Your task to perform on an android device: install app "Indeed Job Search" Image 0: 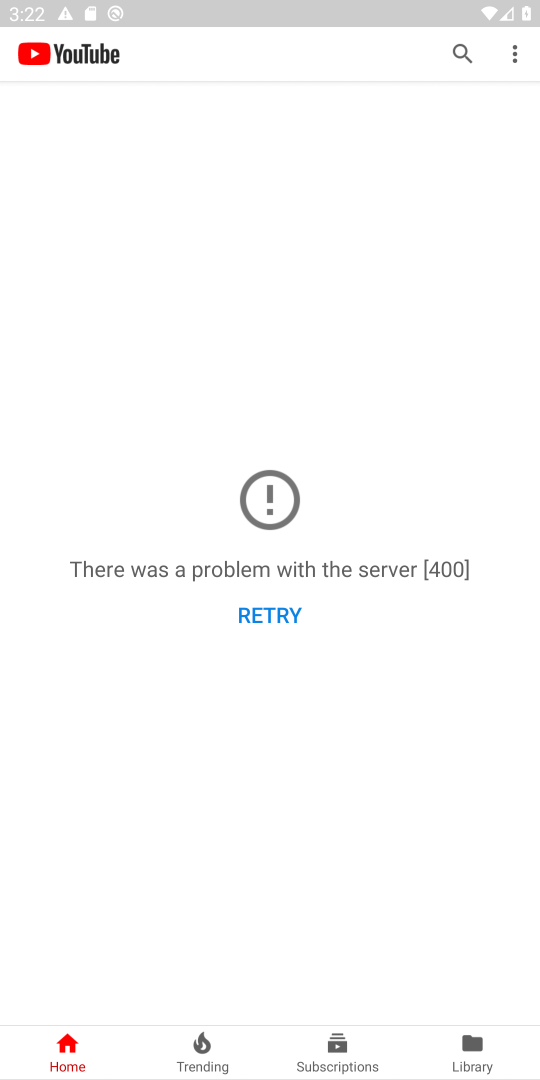
Step 0: press home button
Your task to perform on an android device: install app "Indeed Job Search" Image 1: 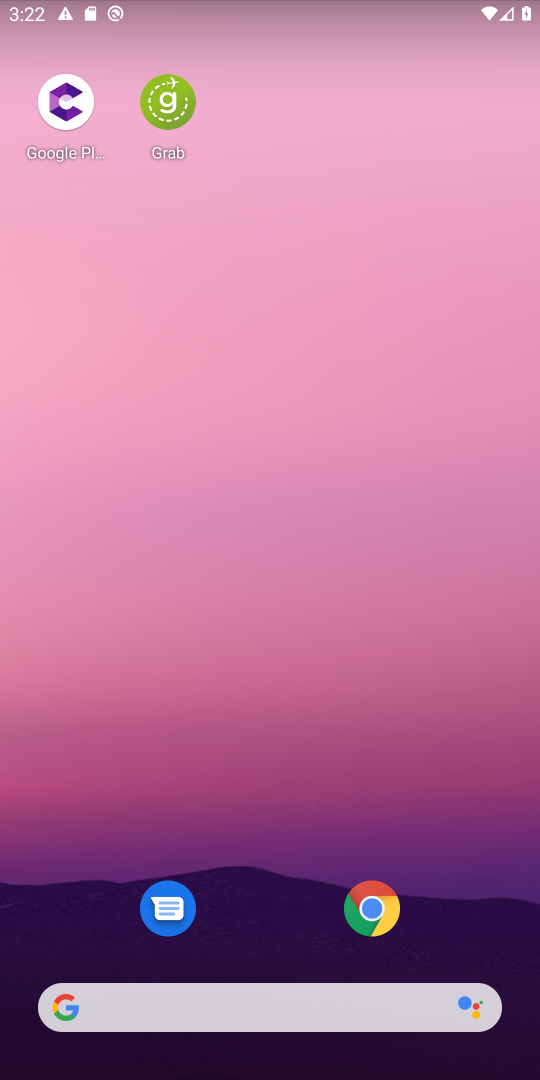
Step 1: drag from (221, 1000) to (169, 291)
Your task to perform on an android device: install app "Indeed Job Search" Image 2: 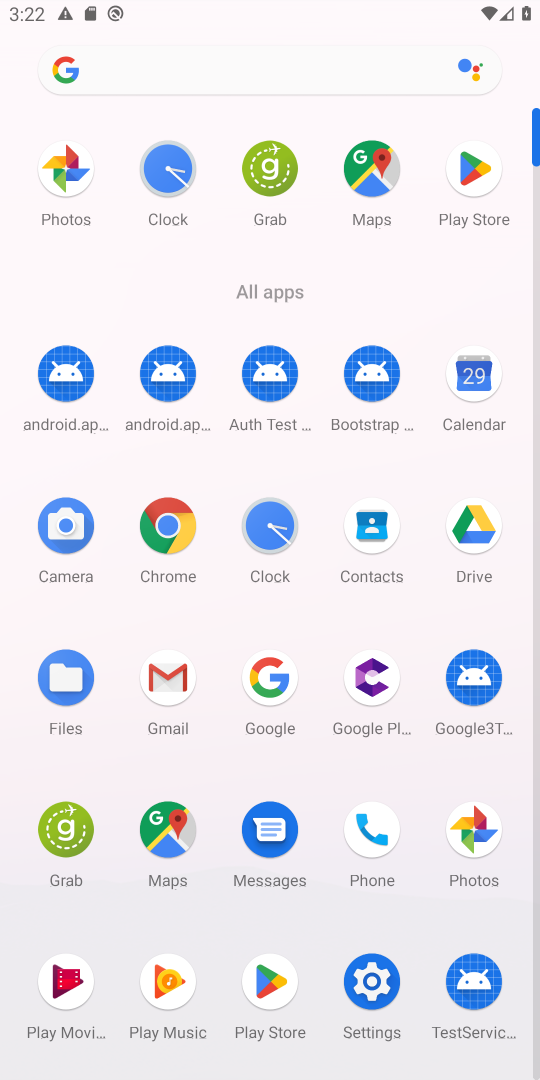
Step 2: click (270, 976)
Your task to perform on an android device: install app "Indeed Job Search" Image 3: 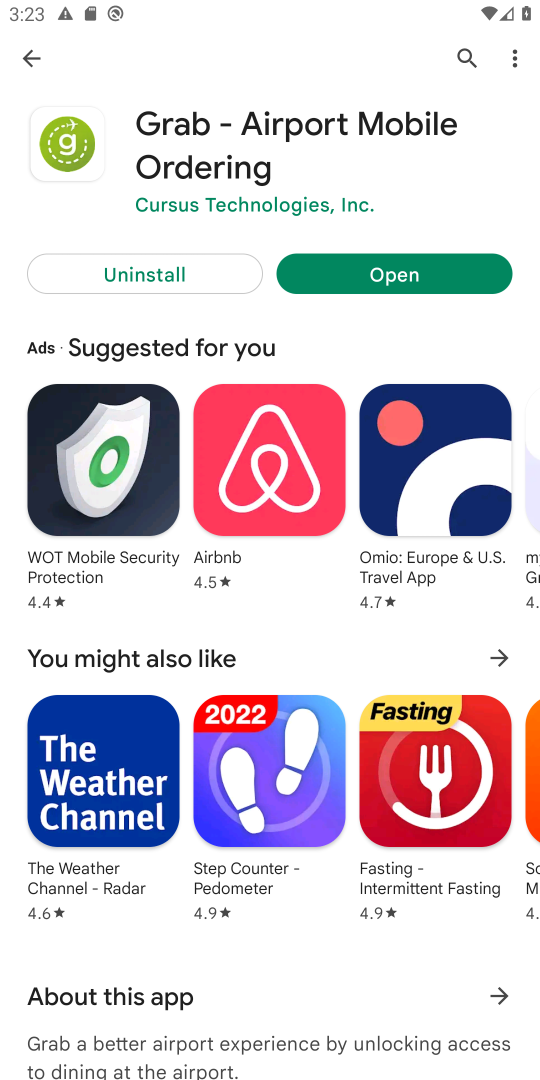
Step 3: click (469, 55)
Your task to perform on an android device: install app "Indeed Job Search" Image 4: 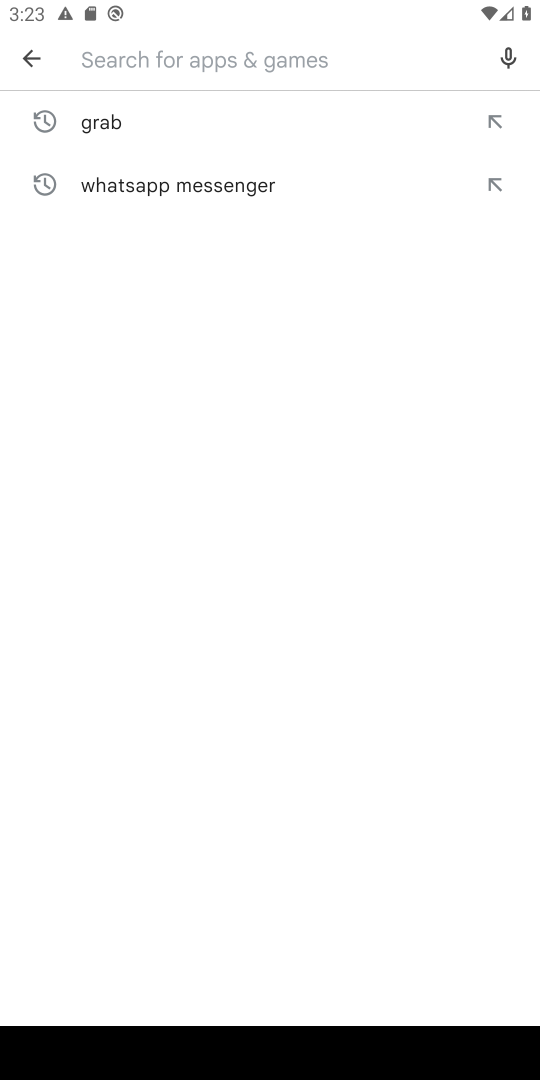
Step 4: type "Indeed Job Search"
Your task to perform on an android device: install app "Indeed Job Search" Image 5: 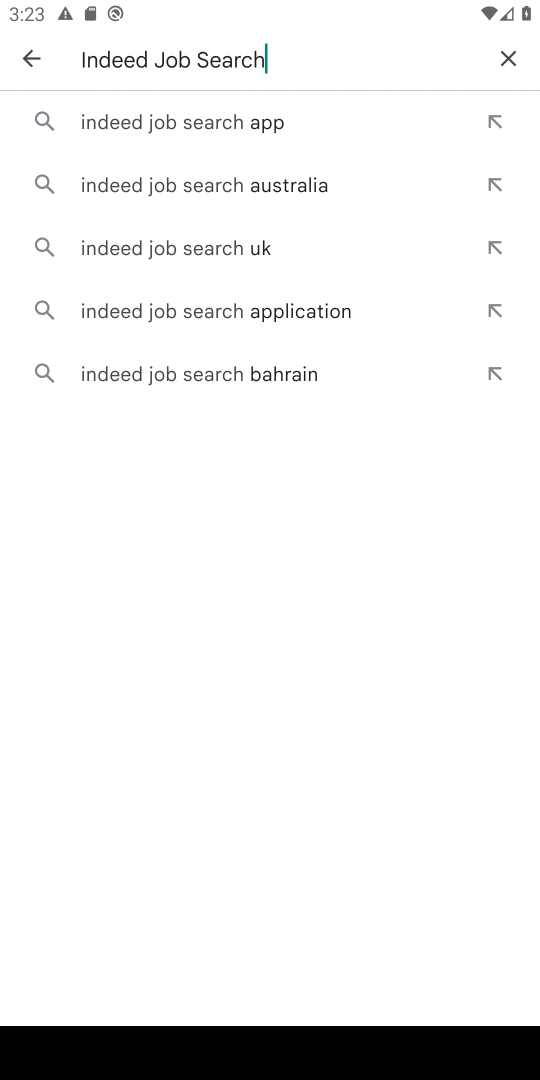
Step 5: click (248, 121)
Your task to perform on an android device: install app "Indeed Job Search" Image 6: 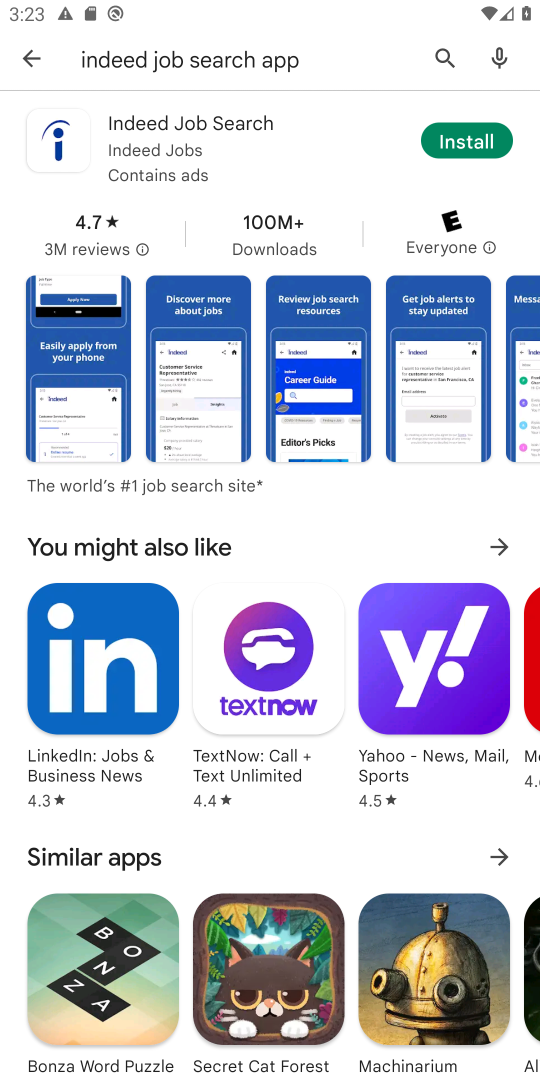
Step 6: click (471, 136)
Your task to perform on an android device: install app "Indeed Job Search" Image 7: 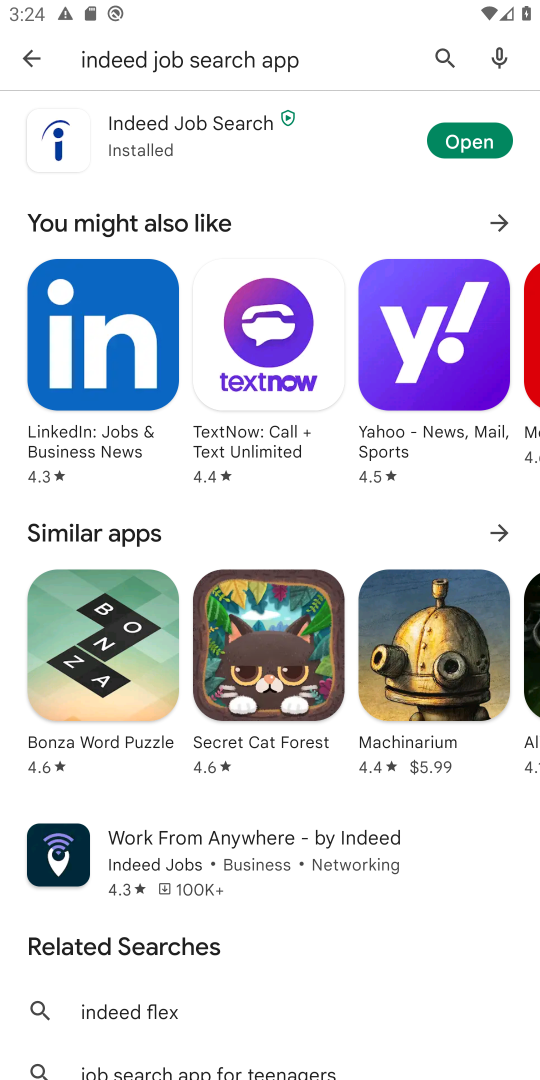
Step 7: task complete